Your task to perform on an android device: open app "Adobe Express: Graphic Design" (install if not already installed) and go to login screen Image 0: 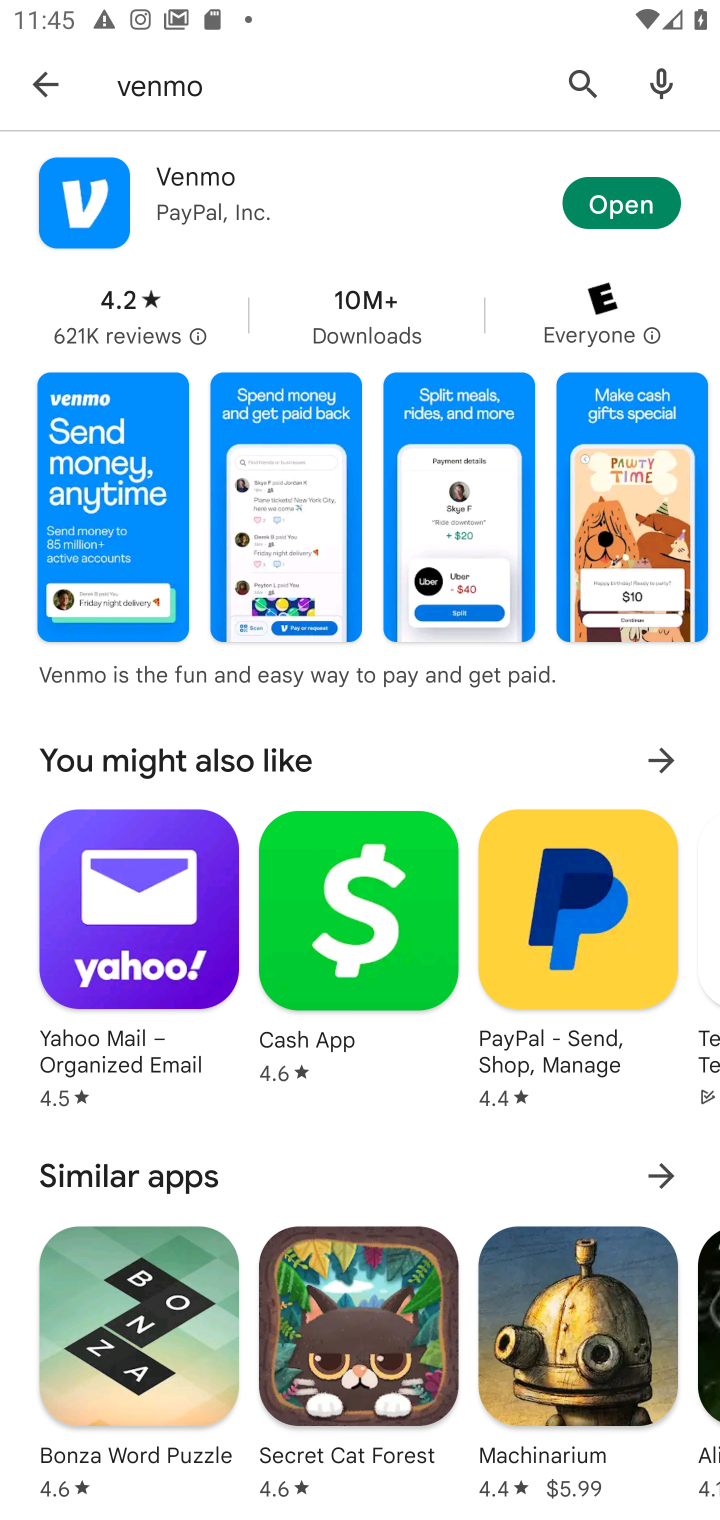
Step 0: click (27, 83)
Your task to perform on an android device: open app "Adobe Express: Graphic Design" (install if not already installed) and go to login screen Image 1: 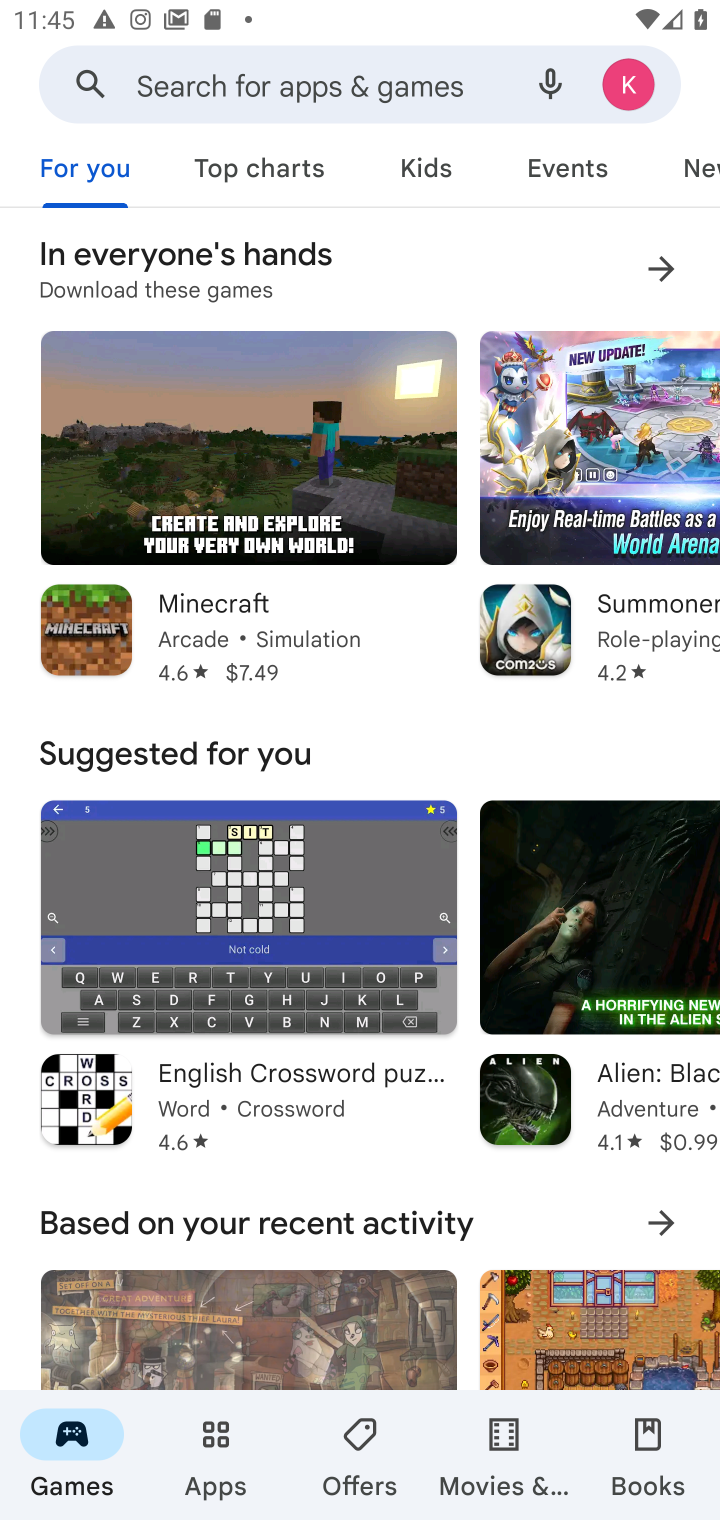
Step 1: click (271, 67)
Your task to perform on an android device: open app "Adobe Express: Graphic Design" (install if not already installed) and go to login screen Image 2: 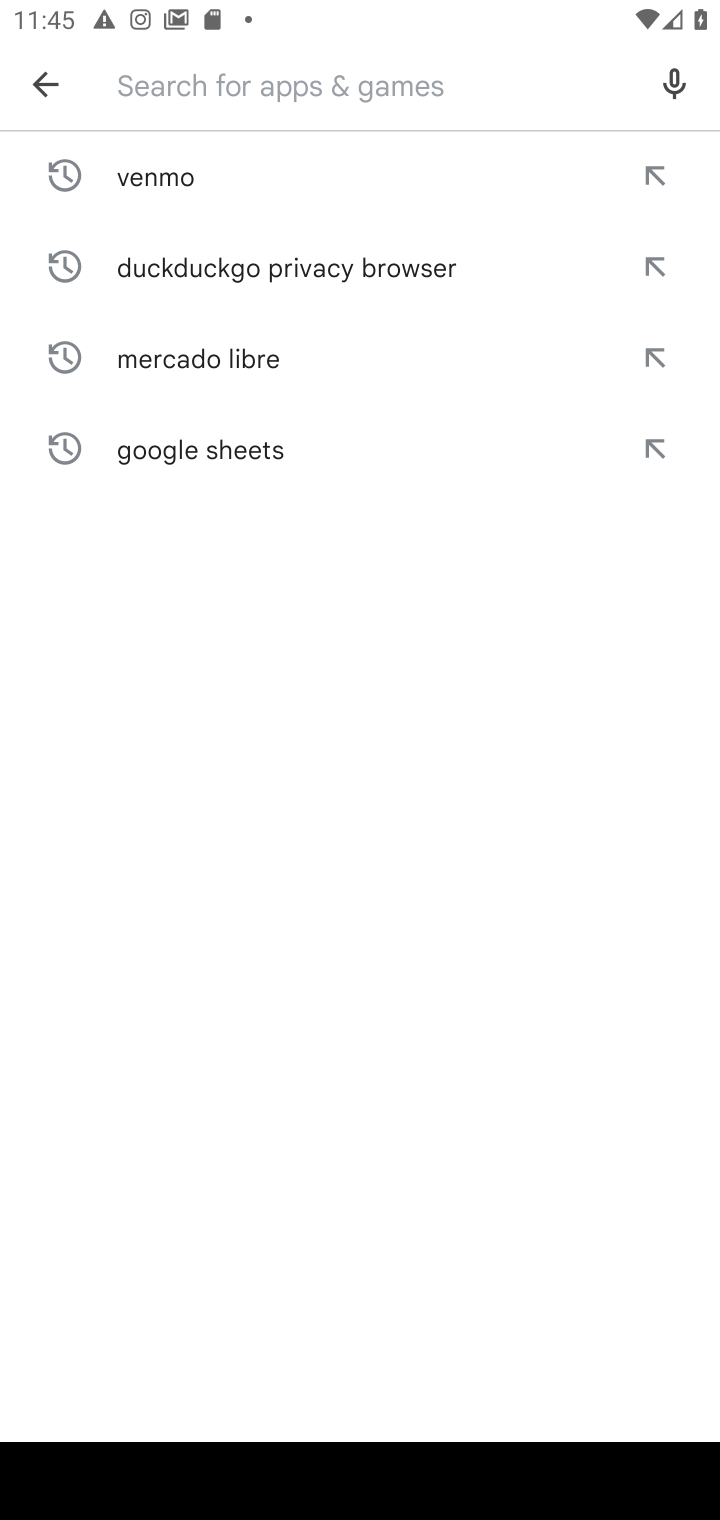
Step 2: type "Adobe Express: Graphic Design"
Your task to perform on an android device: open app "Adobe Express: Graphic Design" (install if not already installed) and go to login screen Image 3: 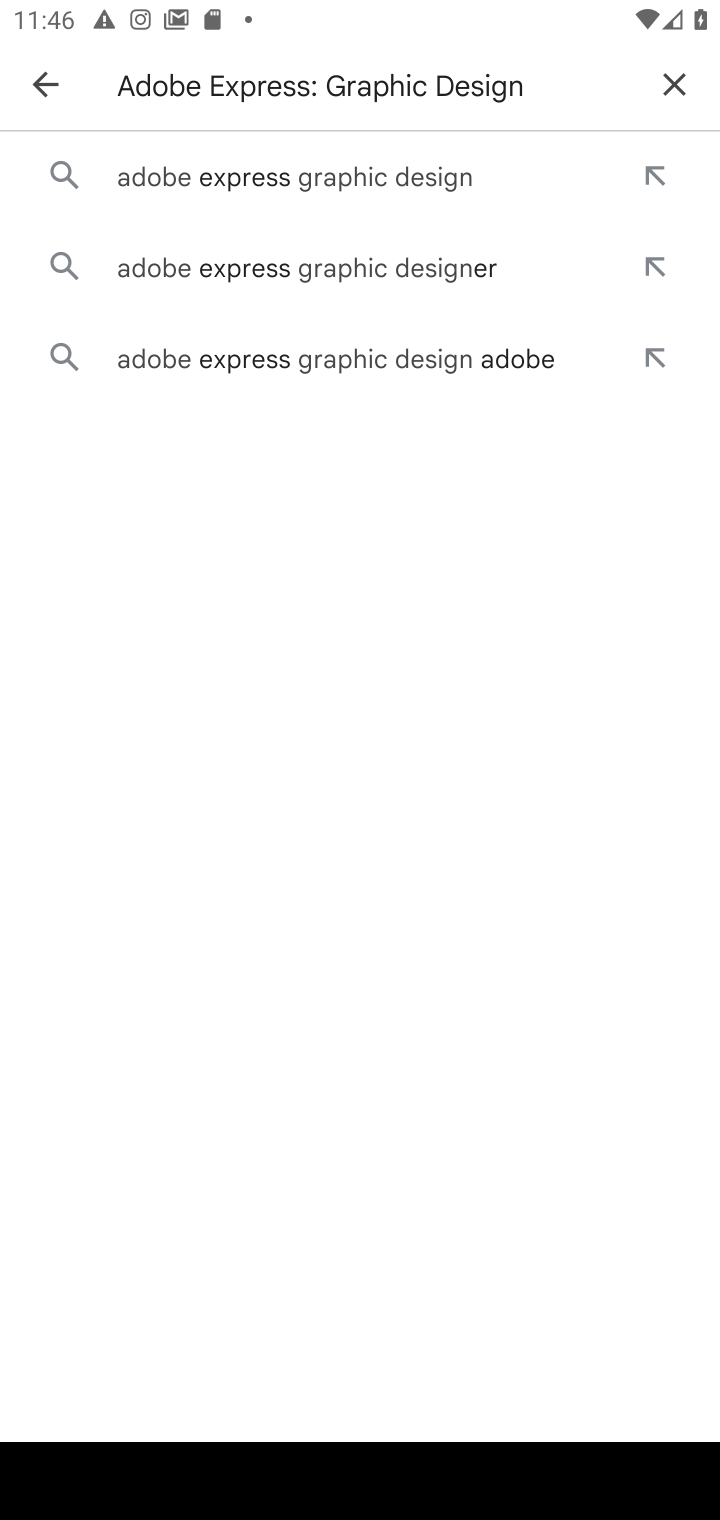
Step 3: click (393, 188)
Your task to perform on an android device: open app "Adobe Express: Graphic Design" (install if not already installed) and go to login screen Image 4: 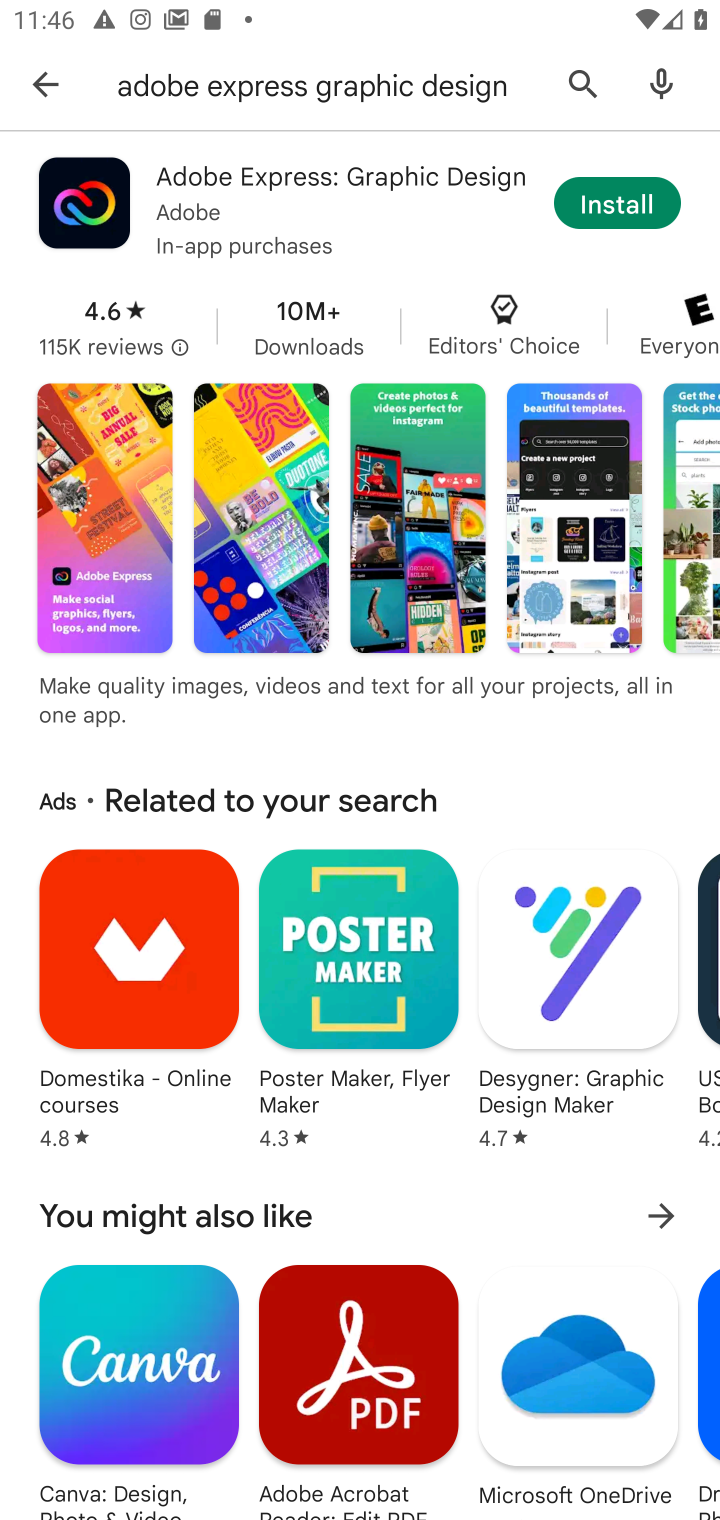
Step 4: click (633, 192)
Your task to perform on an android device: open app "Adobe Express: Graphic Design" (install if not already installed) and go to login screen Image 5: 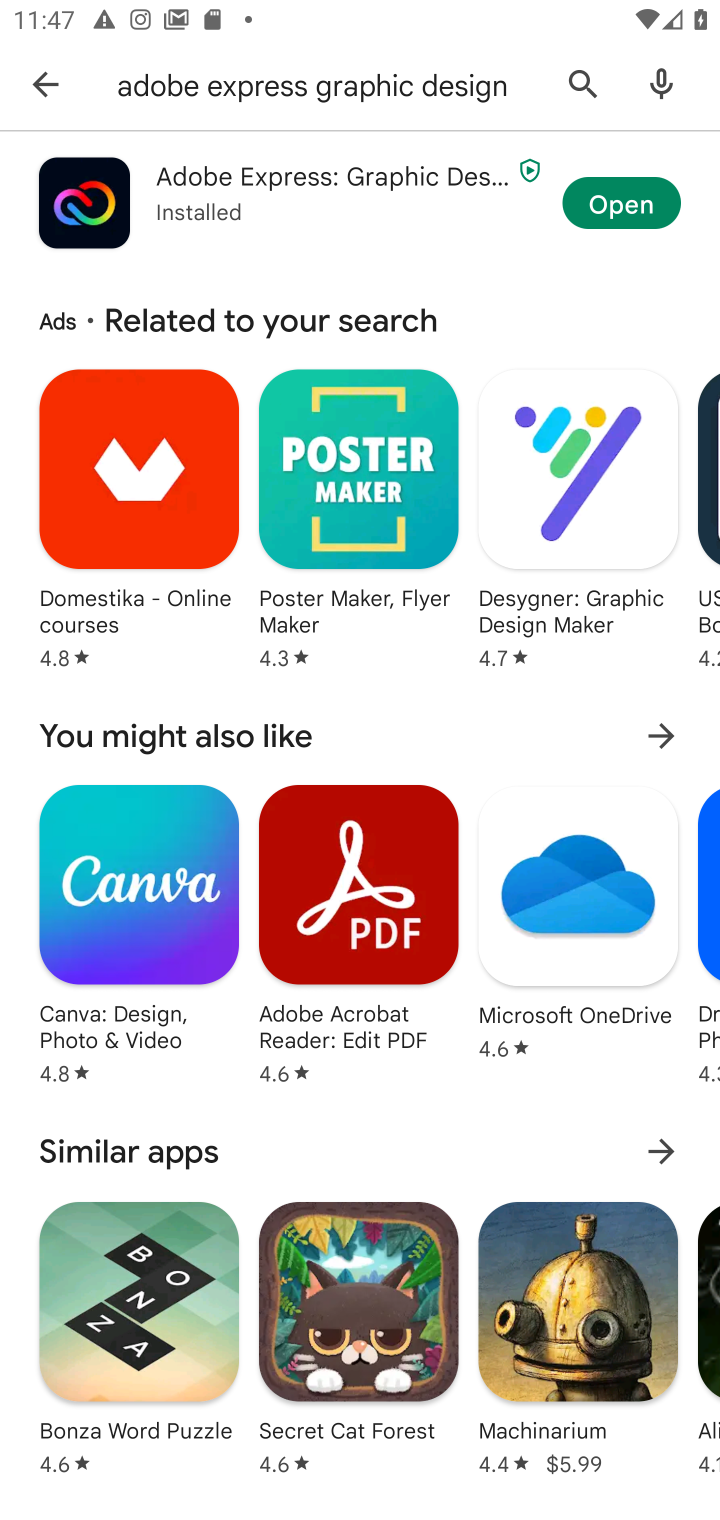
Step 5: click (605, 198)
Your task to perform on an android device: open app "Adobe Express: Graphic Design" (install if not already installed) and go to login screen Image 6: 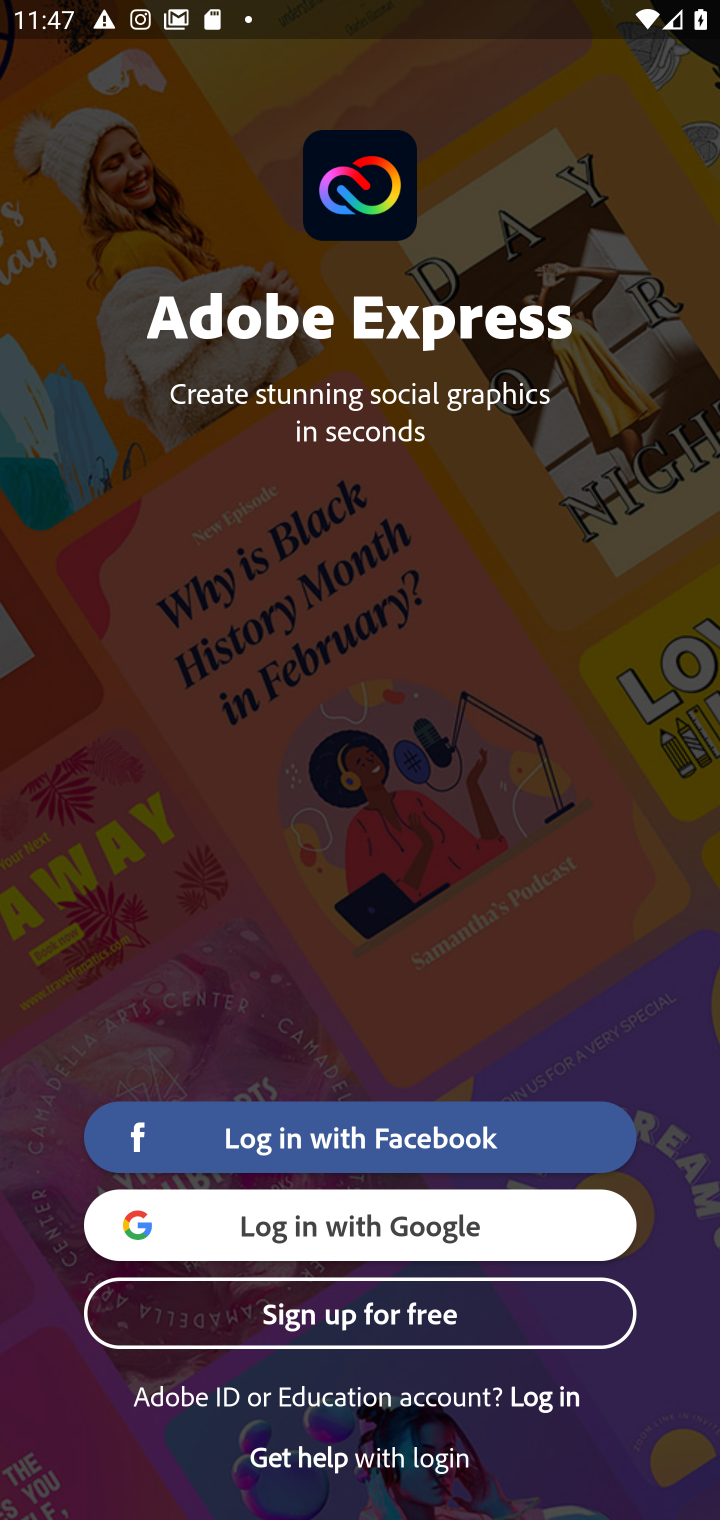
Step 6: click (540, 1405)
Your task to perform on an android device: open app "Adobe Express: Graphic Design" (install if not already installed) and go to login screen Image 7: 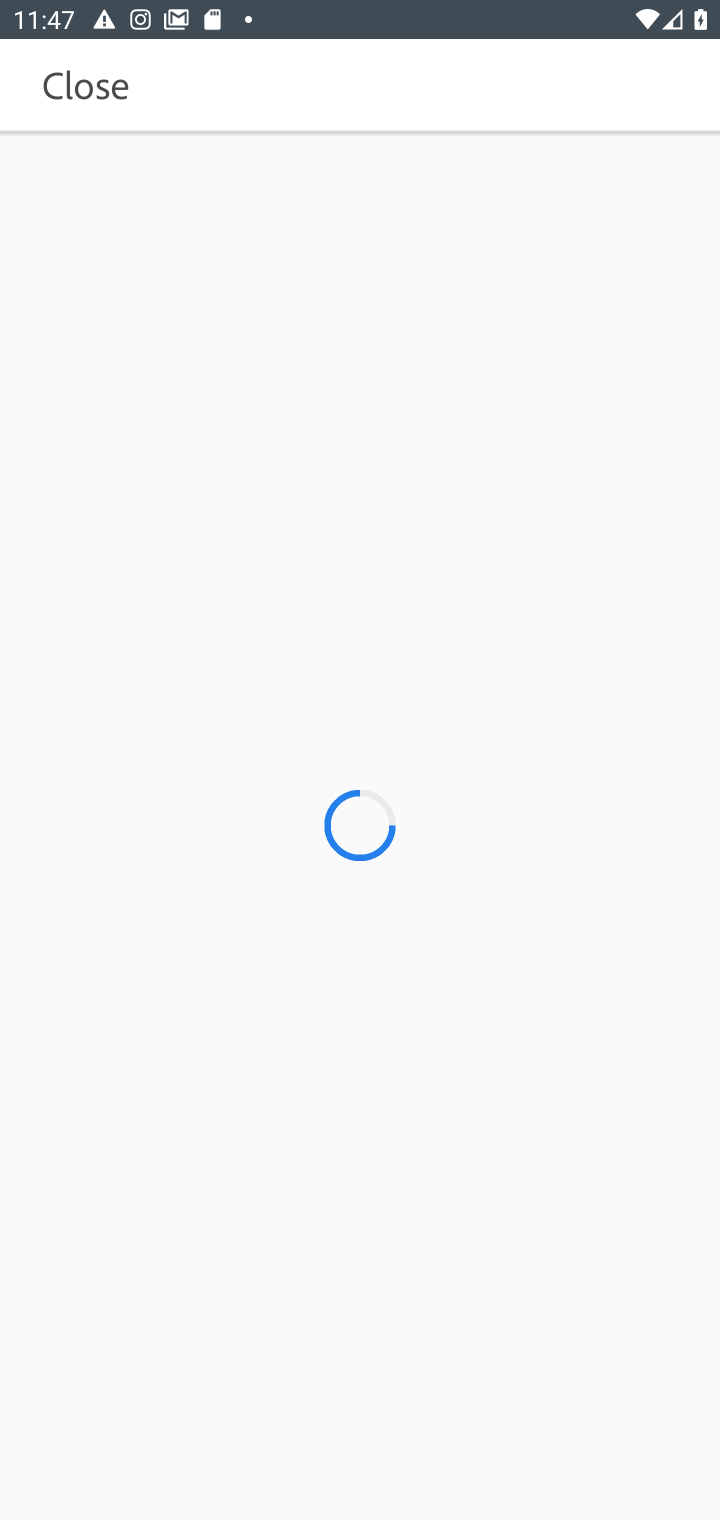
Step 7: task complete